Your task to perform on an android device: Open display settings Image 0: 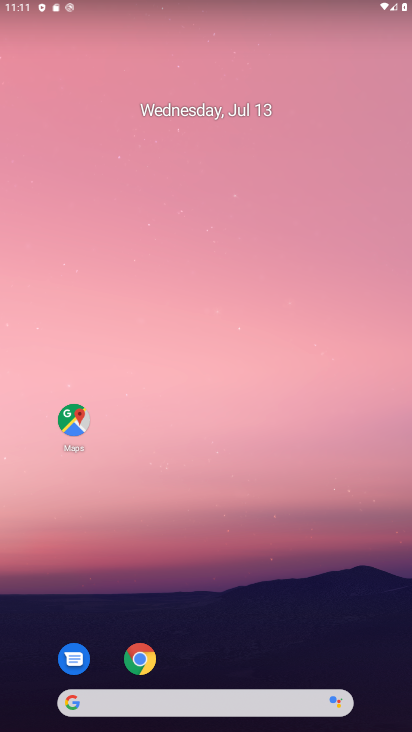
Step 0: drag from (278, 672) to (217, 90)
Your task to perform on an android device: Open display settings Image 1: 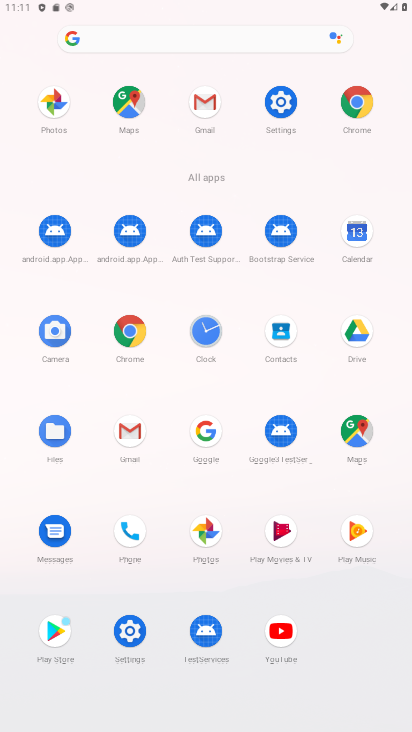
Step 1: click (280, 99)
Your task to perform on an android device: Open display settings Image 2: 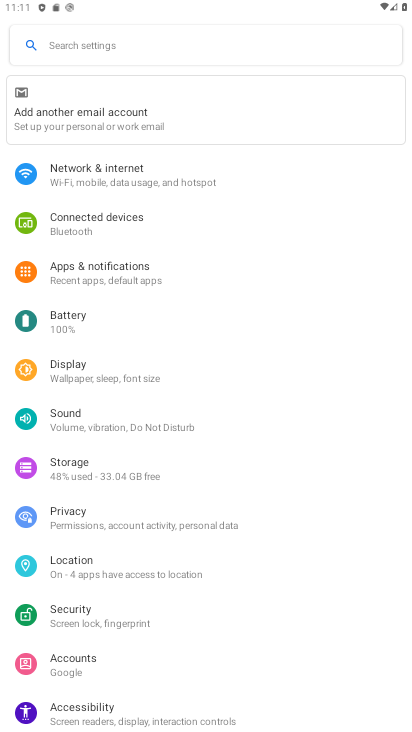
Step 2: click (183, 376)
Your task to perform on an android device: Open display settings Image 3: 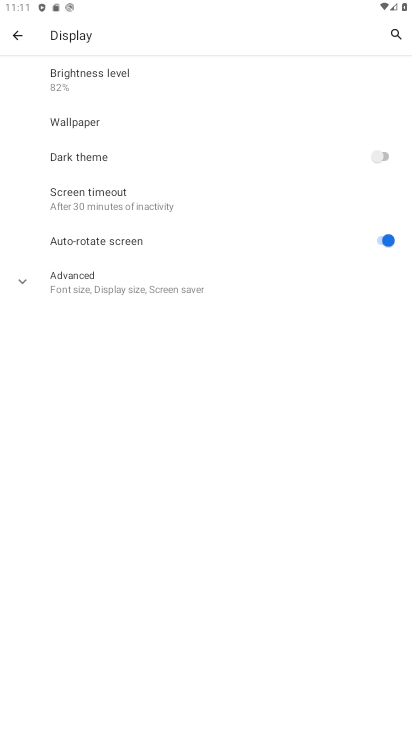
Step 3: task complete